Your task to perform on an android device: What's on my calendar today? Image 0: 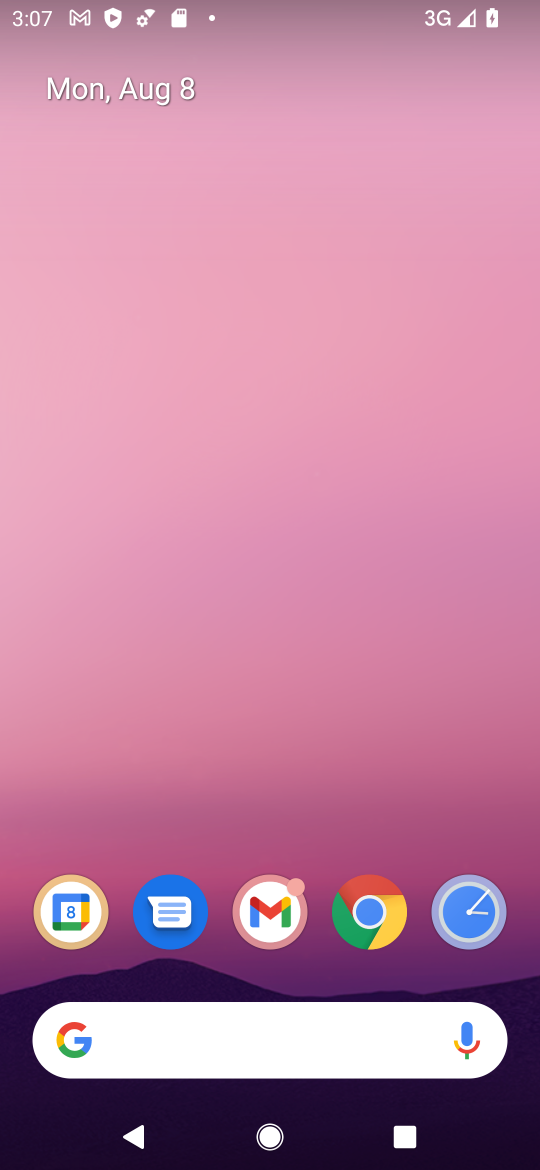
Step 0: press home button
Your task to perform on an android device: What's on my calendar today? Image 1: 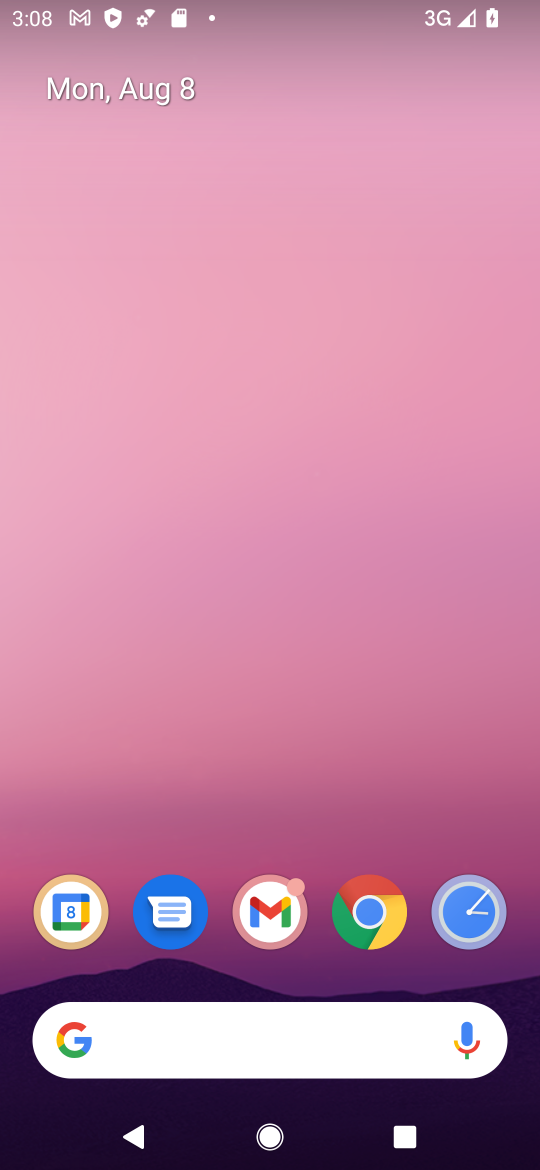
Step 1: drag from (293, 402) to (417, 105)
Your task to perform on an android device: What's on my calendar today? Image 2: 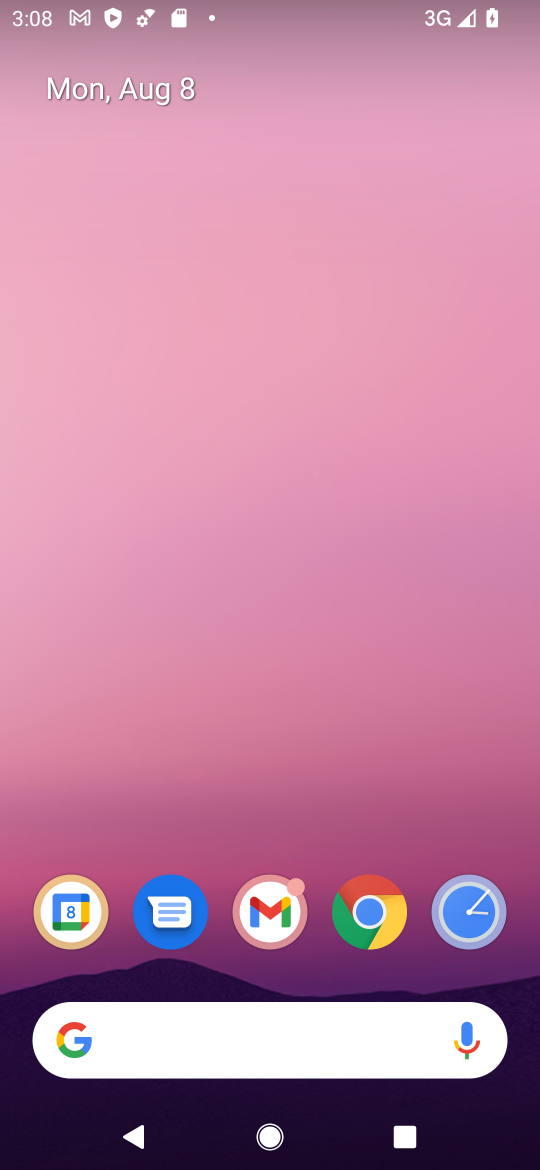
Step 2: drag from (40, 925) to (281, 156)
Your task to perform on an android device: What's on my calendar today? Image 3: 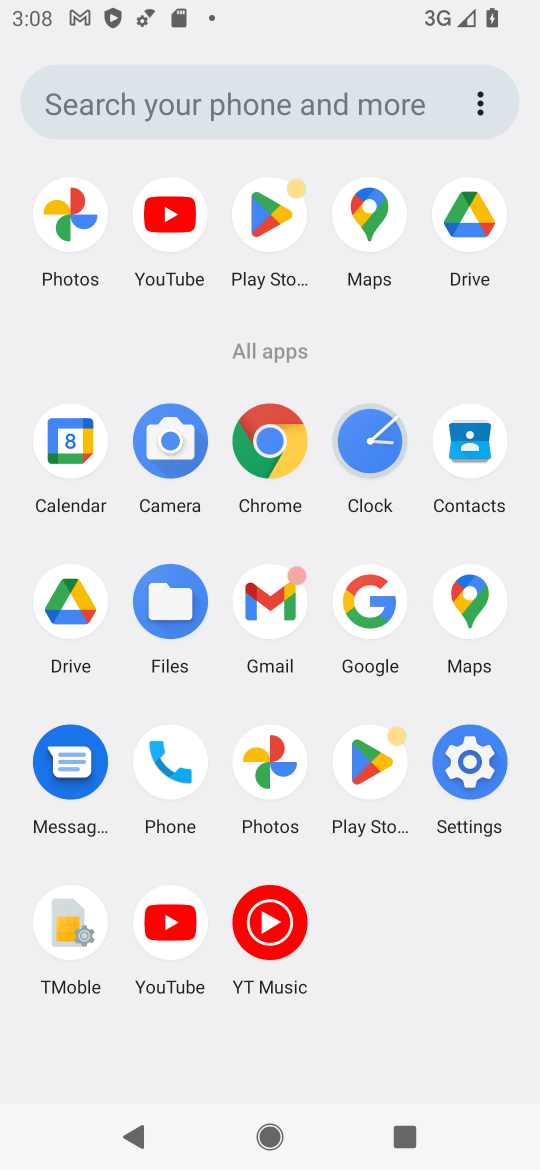
Step 3: click (91, 445)
Your task to perform on an android device: What's on my calendar today? Image 4: 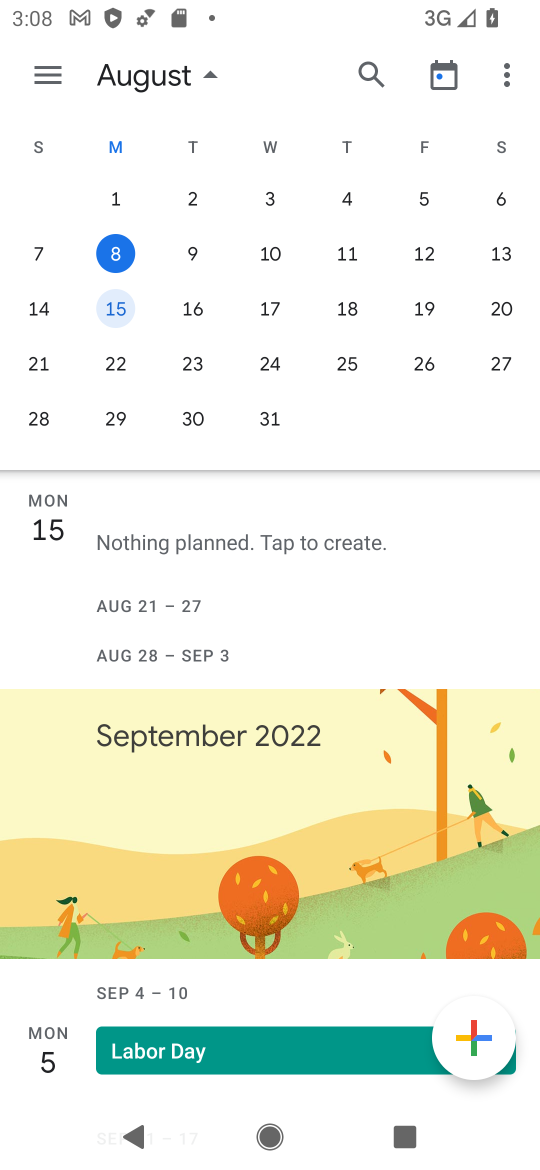
Step 4: click (127, 249)
Your task to perform on an android device: What's on my calendar today? Image 5: 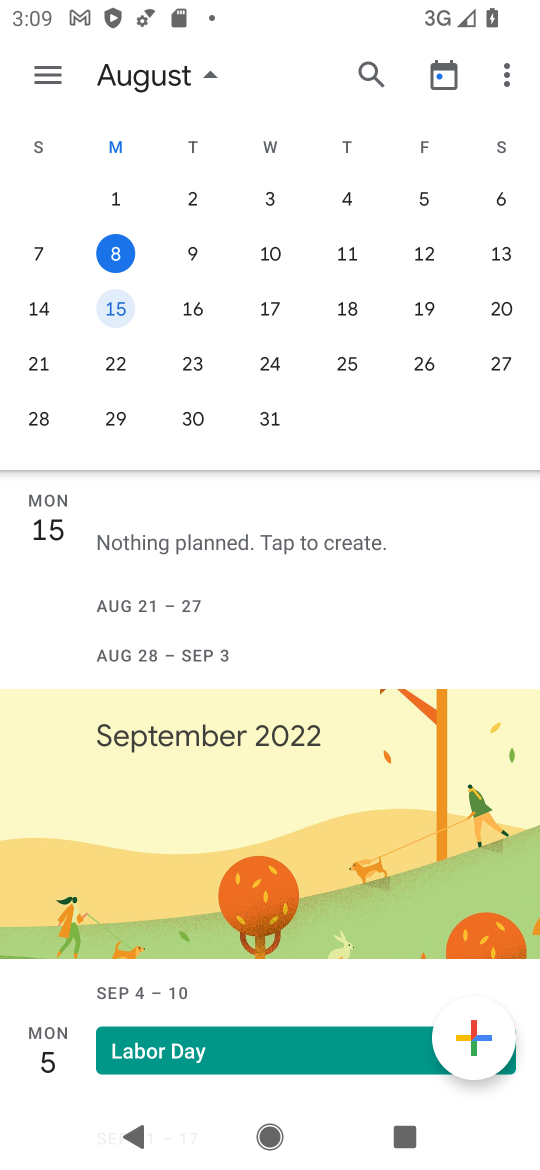
Step 5: task complete